Your task to perform on an android device: see creations saved in the google photos Image 0: 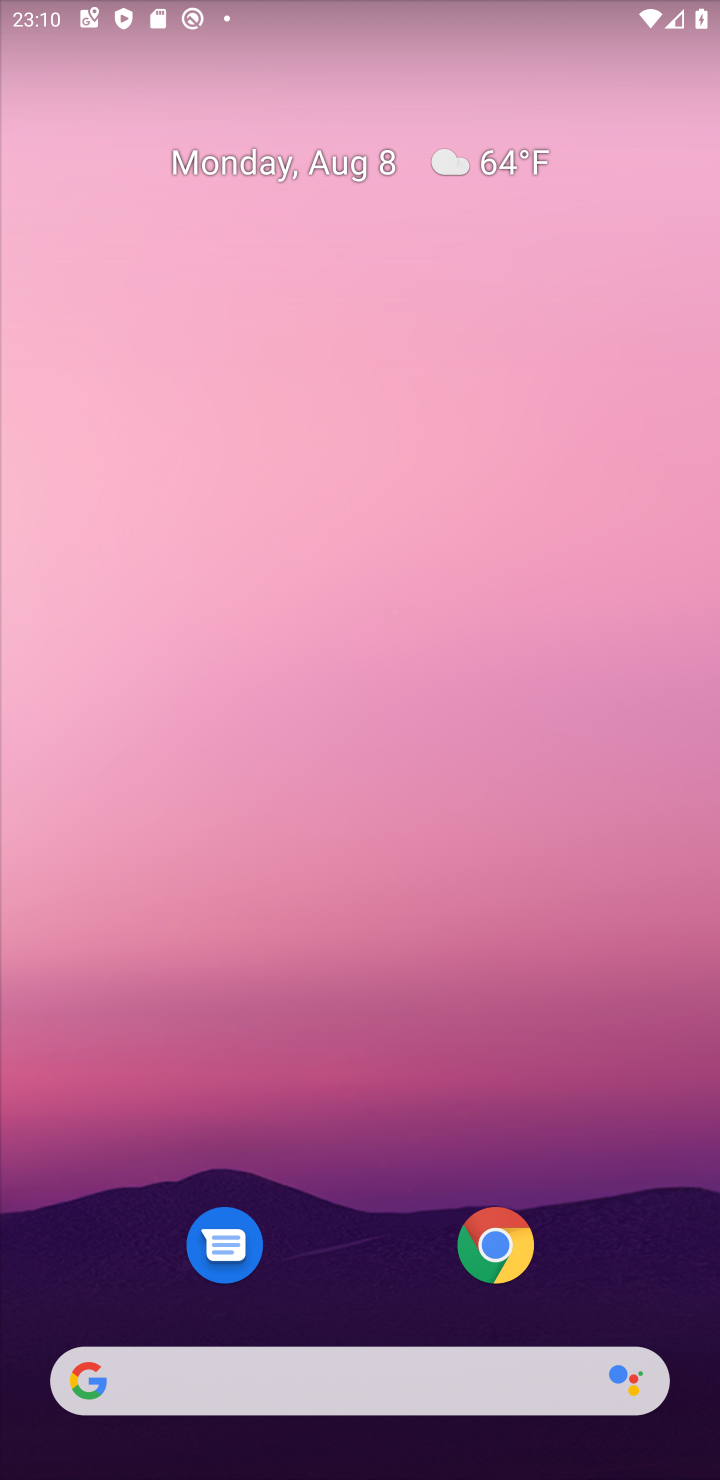
Step 0: drag from (396, 1198) to (407, 514)
Your task to perform on an android device: see creations saved in the google photos Image 1: 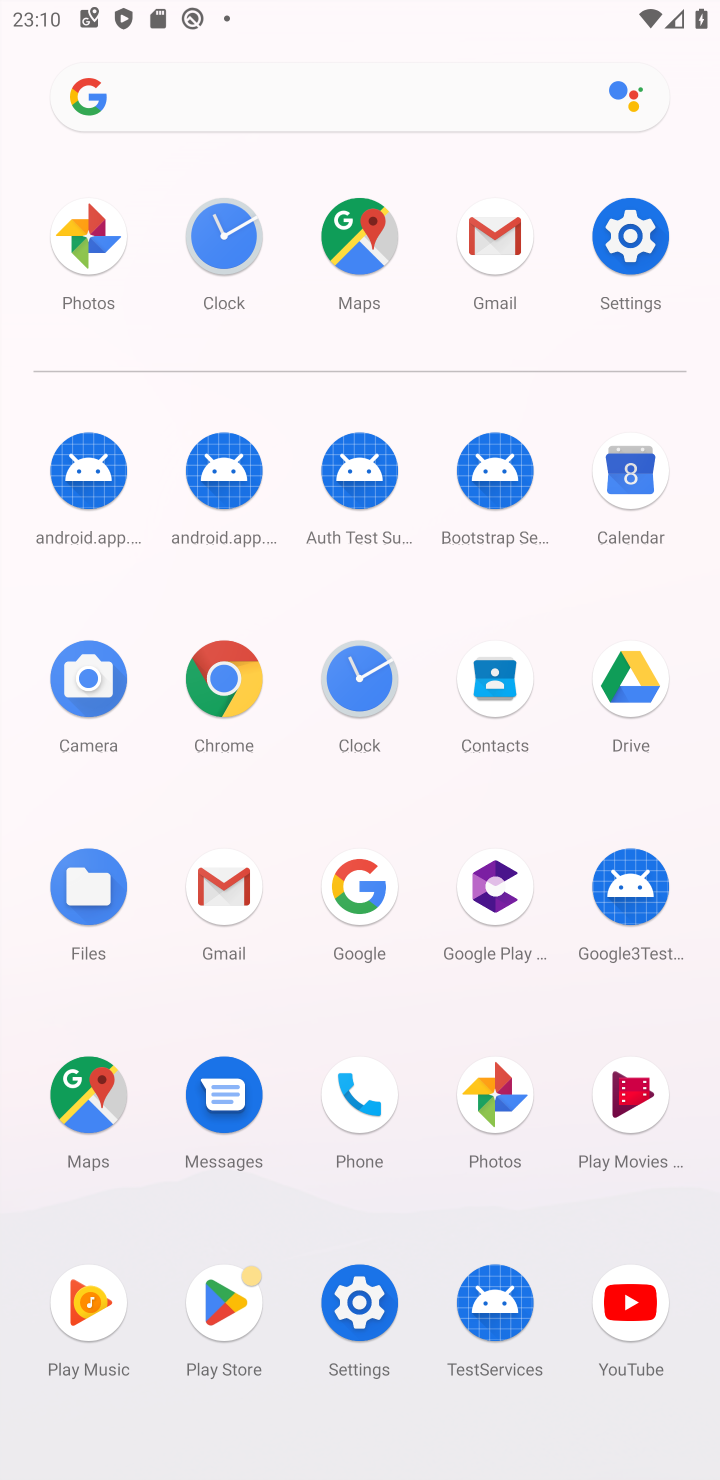
Step 1: click (82, 236)
Your task to perform on an android device: see creations saved in the google photos Image 2: 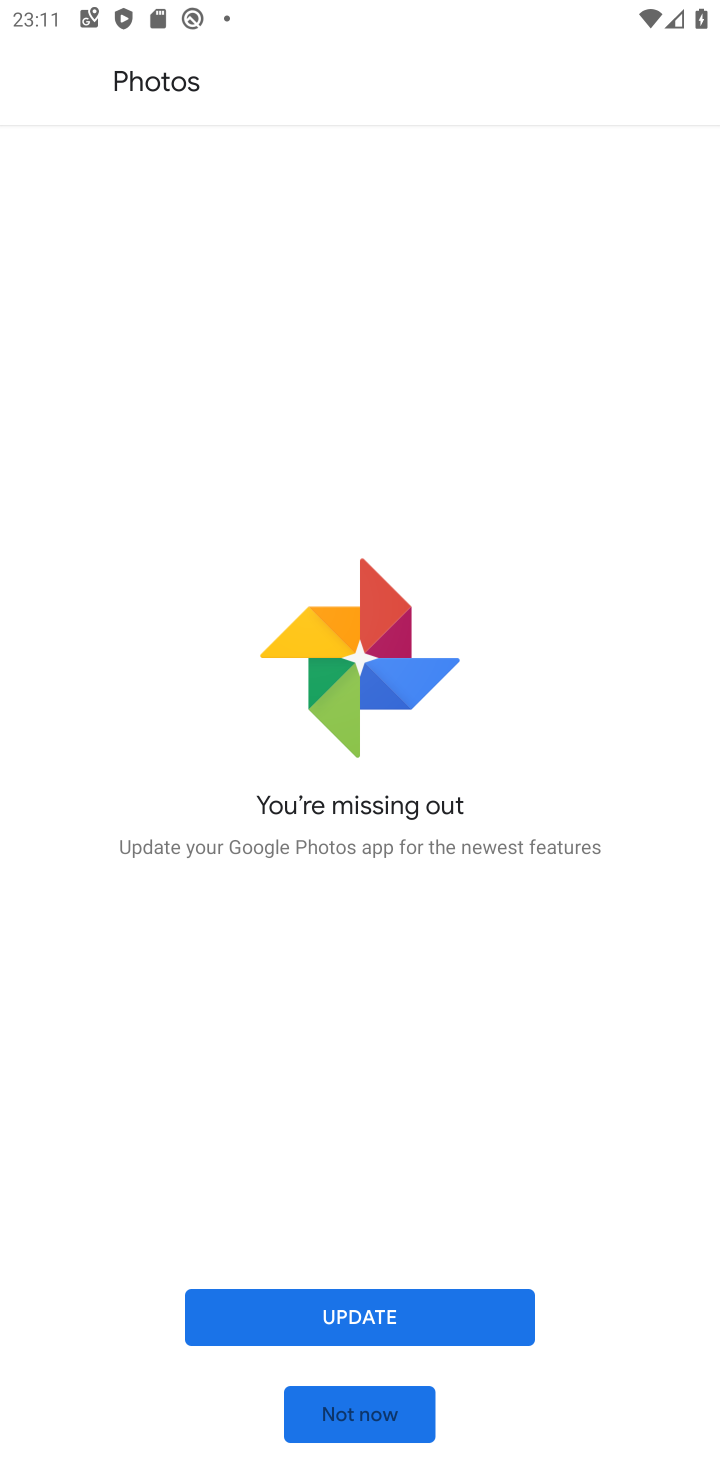
Step 2: click (366, 1321)
Your task to perform on an android device: see creations saved in the google photos Image 3: 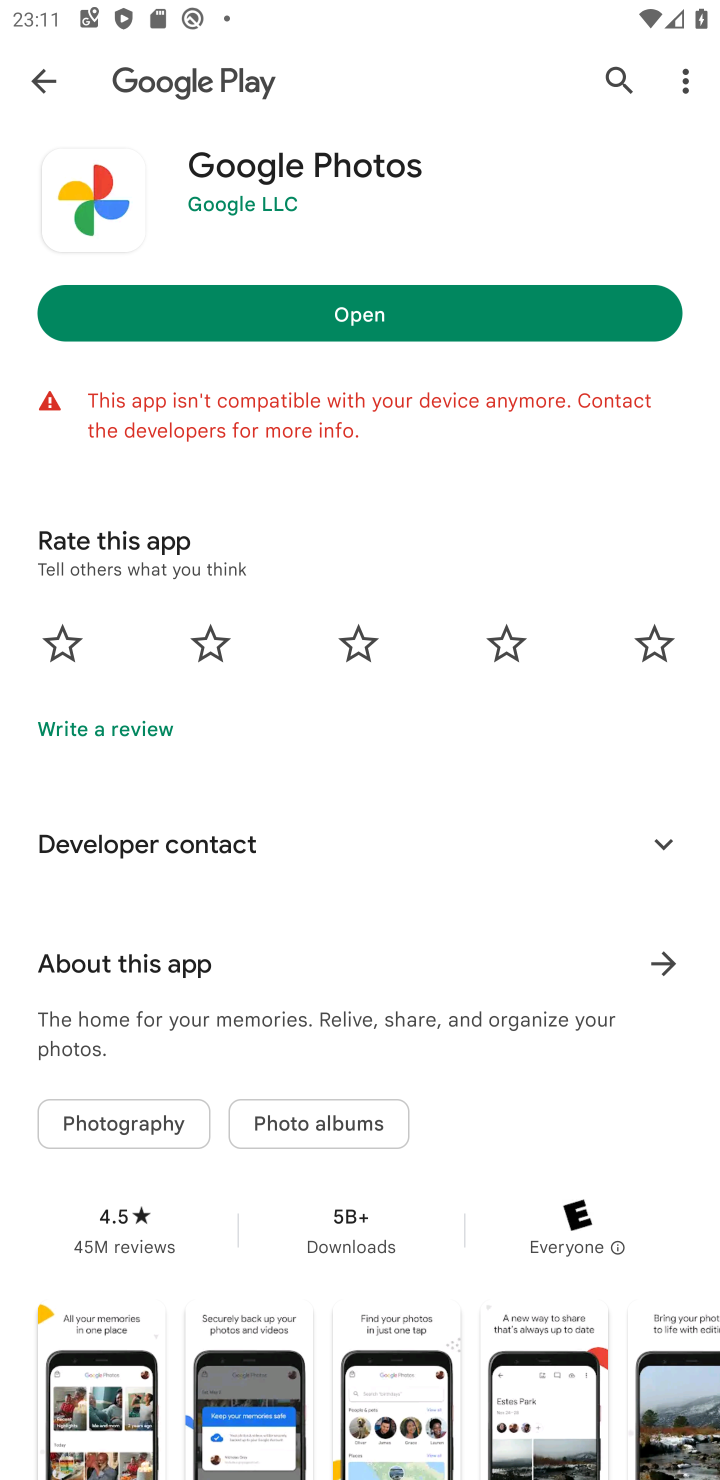
Step 3: click (367, 300)
Your task to perform on an android device: see creations saved in the google photos Image 4: 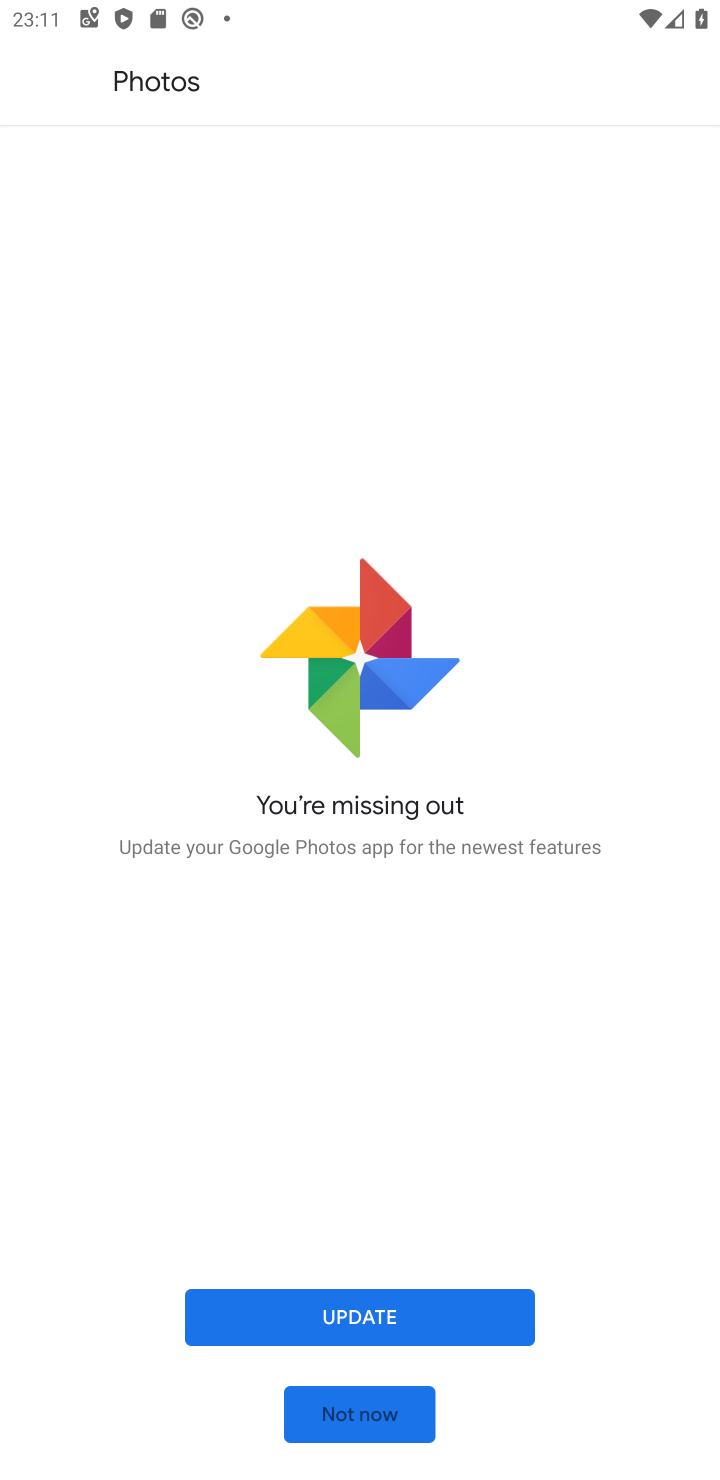
Step 4: click (359, 1300)
Your task to perform on an android device: see creations saved in the google photos Image 5: 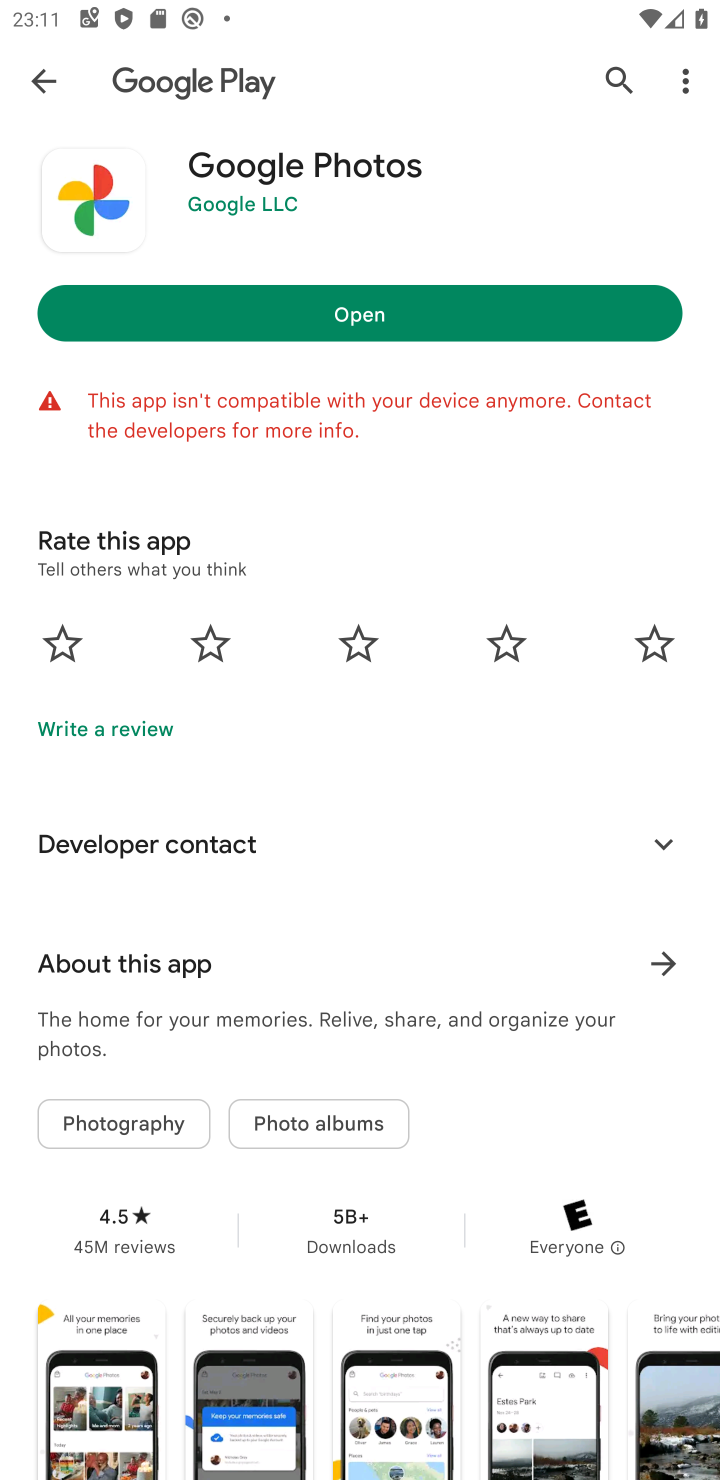
Step 5: click (425, 315)
Your task to perform on an android device: see creations saved in the google photos Image 6: 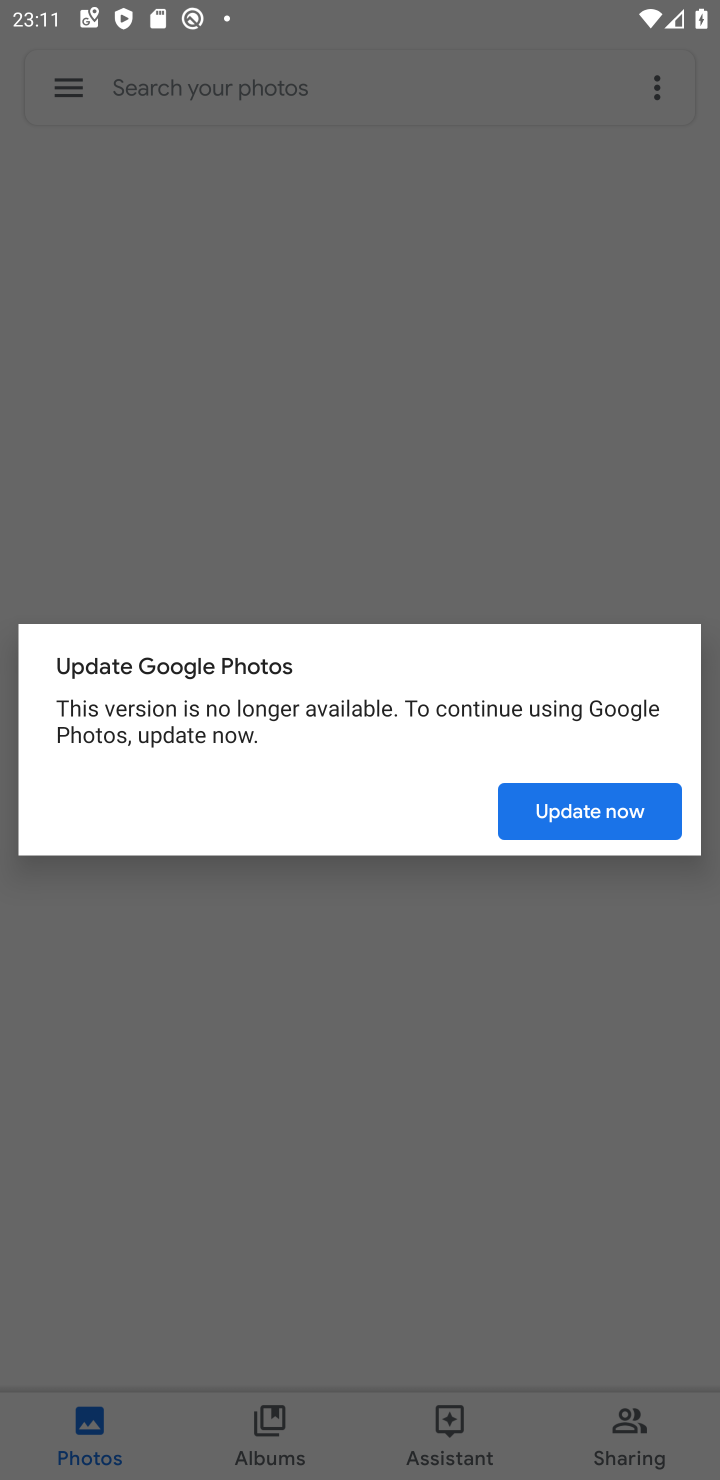
Step 6: click (620, 806)
Your task to perform on an android device: see creations saved in the google photos Image 7: 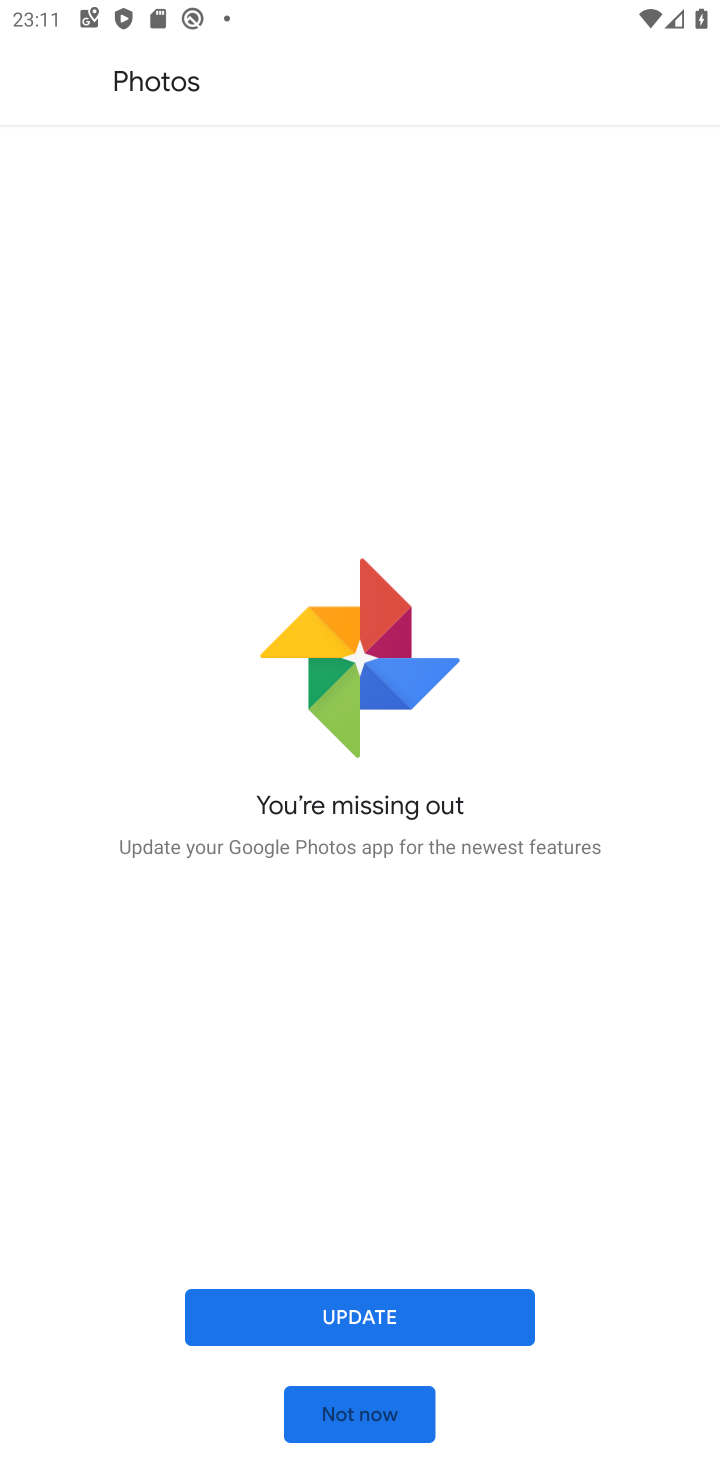
Step 7: click (352, 1423)
Your task to perform on an android device: see creations saved in the google photos Image 8: 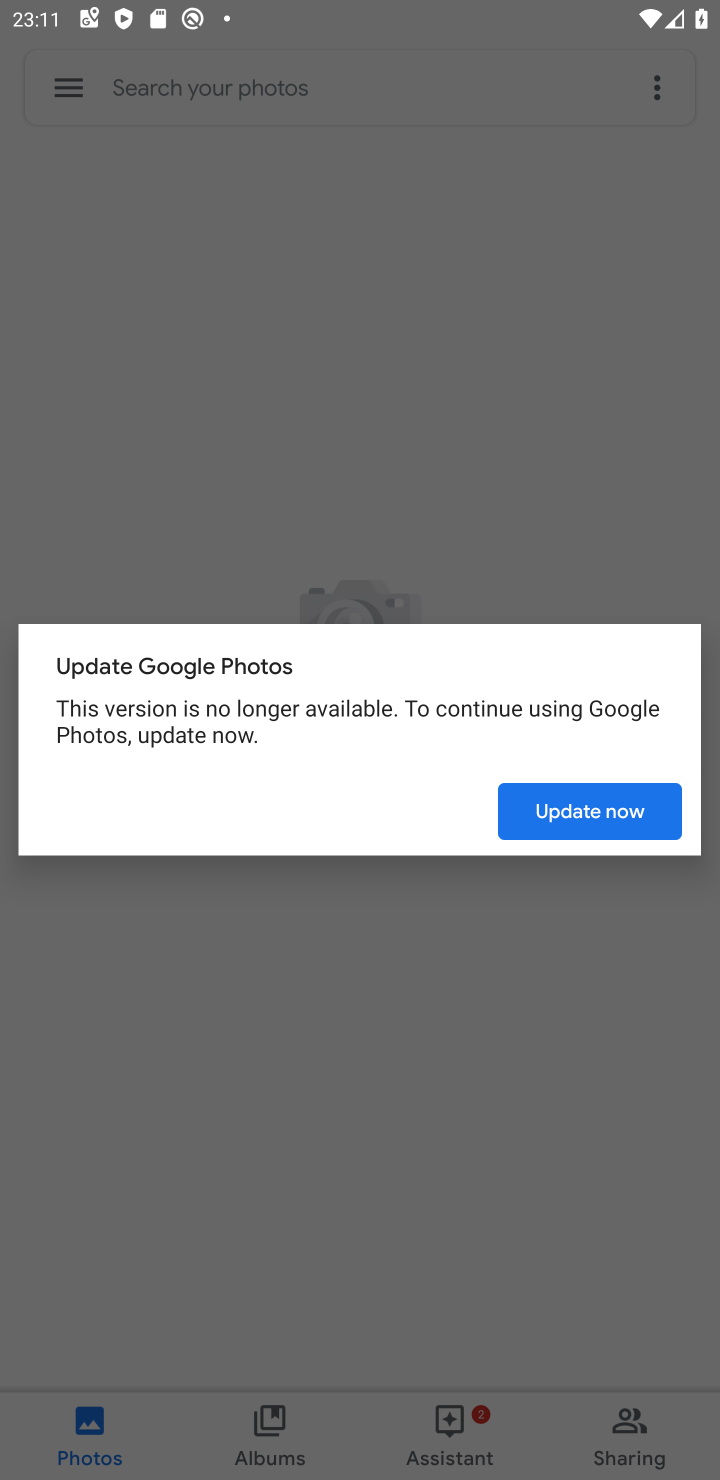
Step 8: click (597, 815)
Your task to perform on an android device: see creations saved in the google photos Image 9: 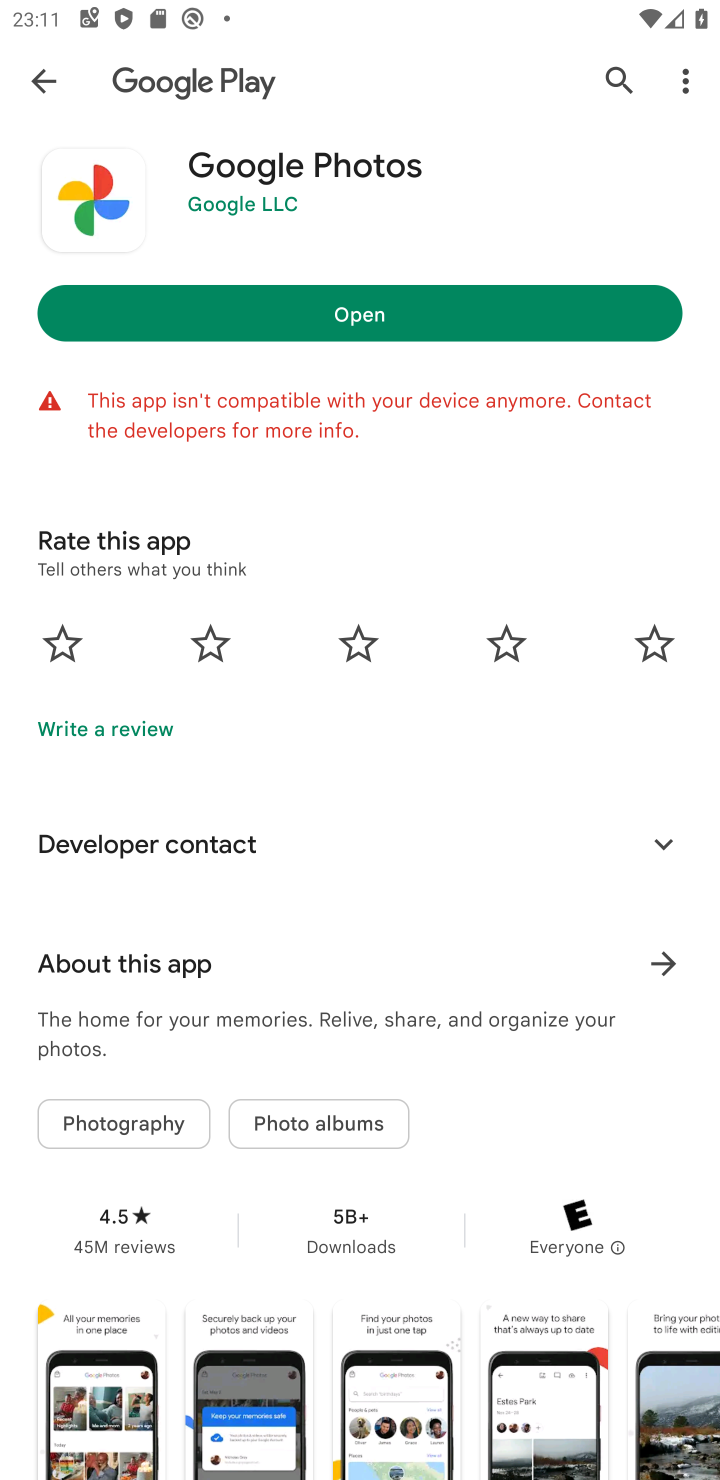
Step 9: click (339, 304)
Your task to perform on an android device: see creations saved in the google photos Image 10: 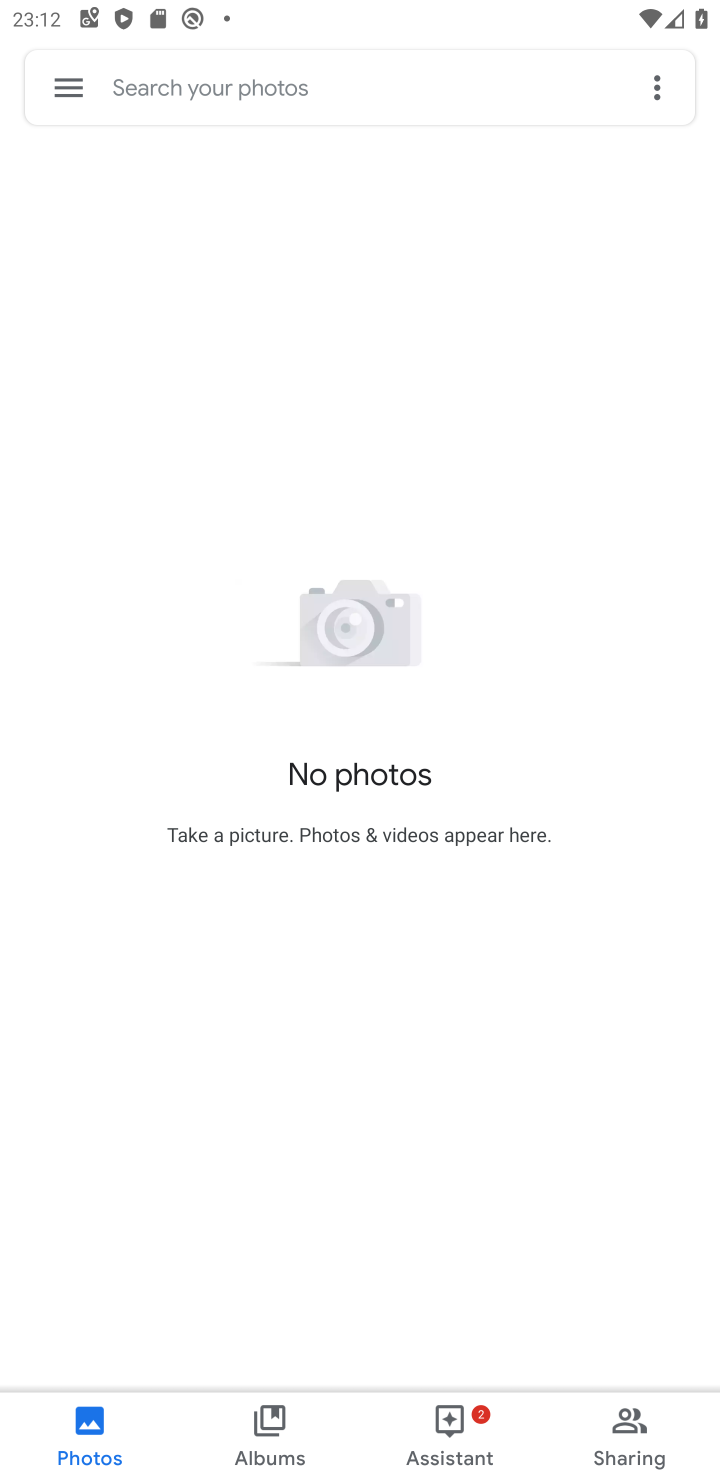
Step 10: click (151, 74)
Your task to perform on an android device: see creations saved in the google photos Image 11: 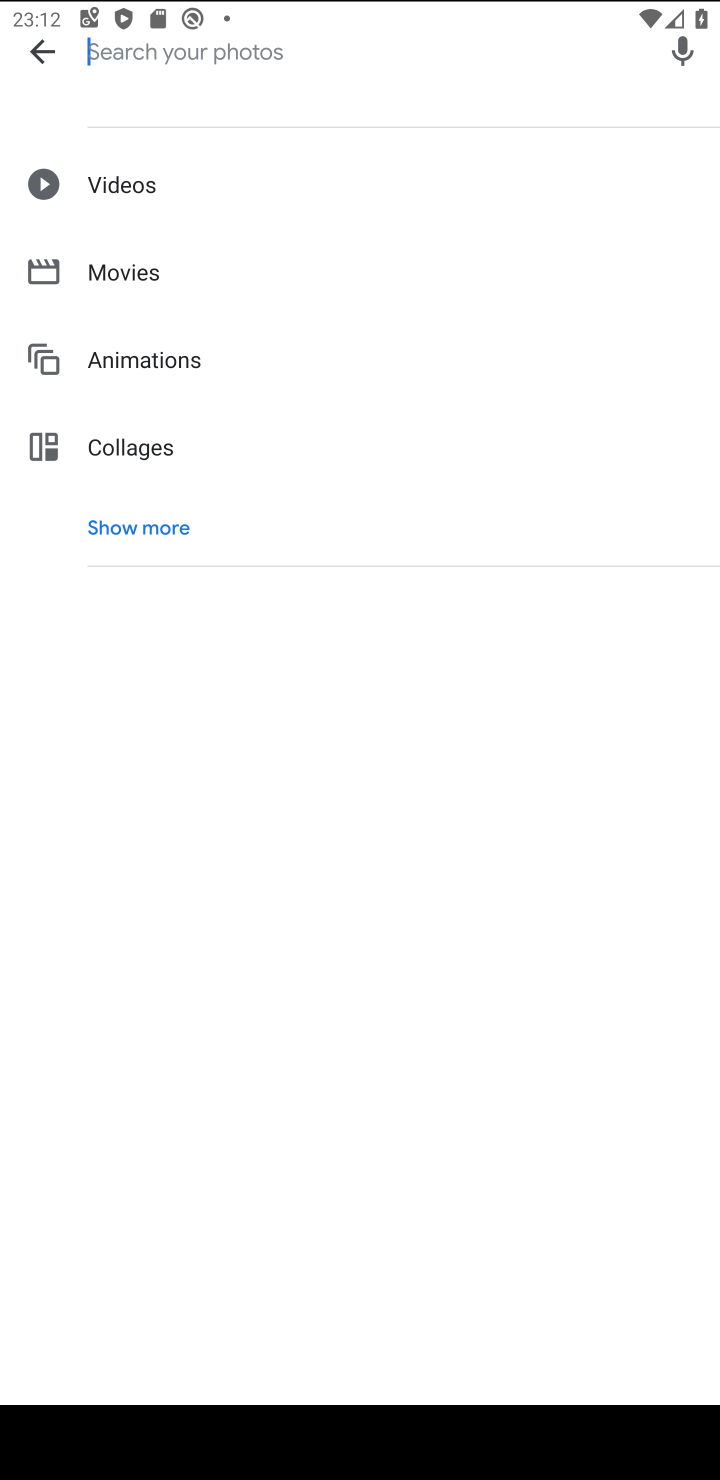
Step 11: click (159, 520)
Your task to perform on an android device: see creations saved in the google photos Image 12: 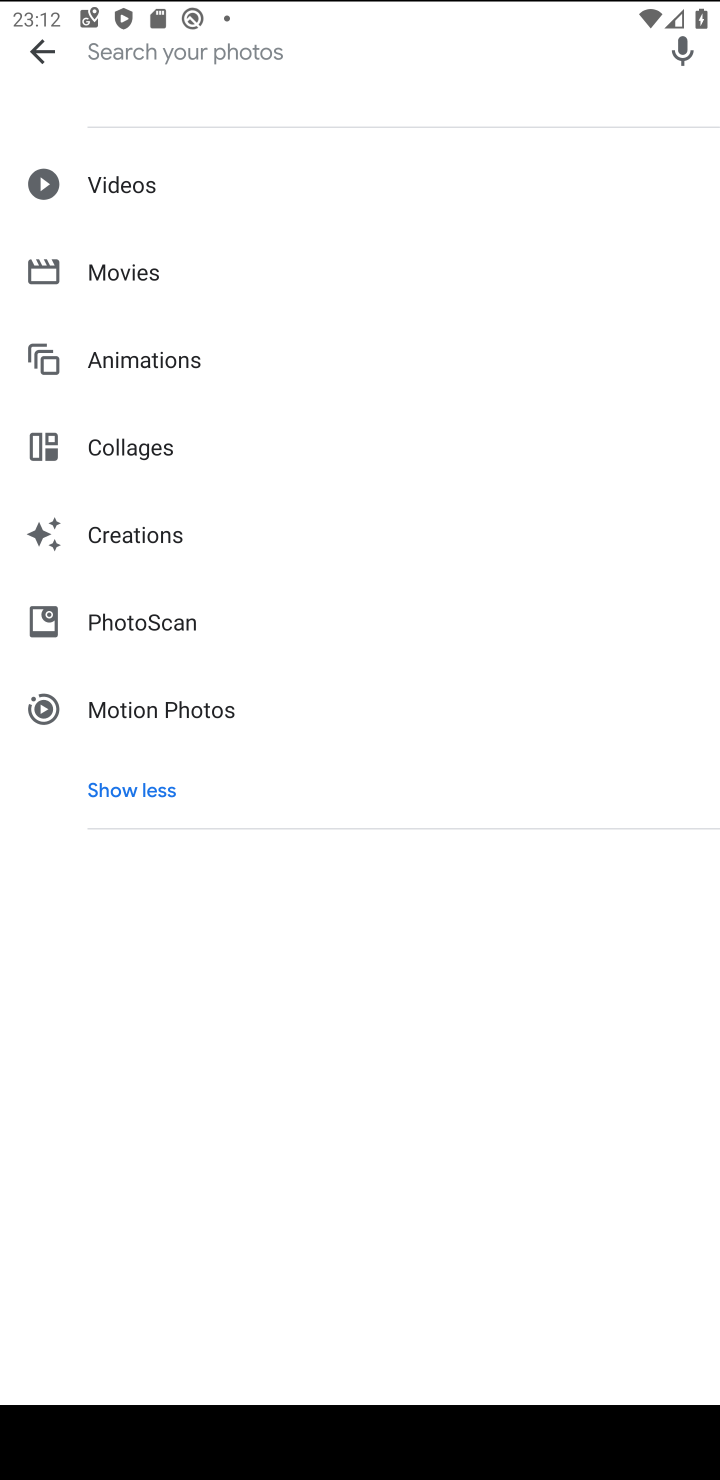
Step 12: click (152, 529)
Your task to perform on an android device: see creations saved in the google photos Image 13: 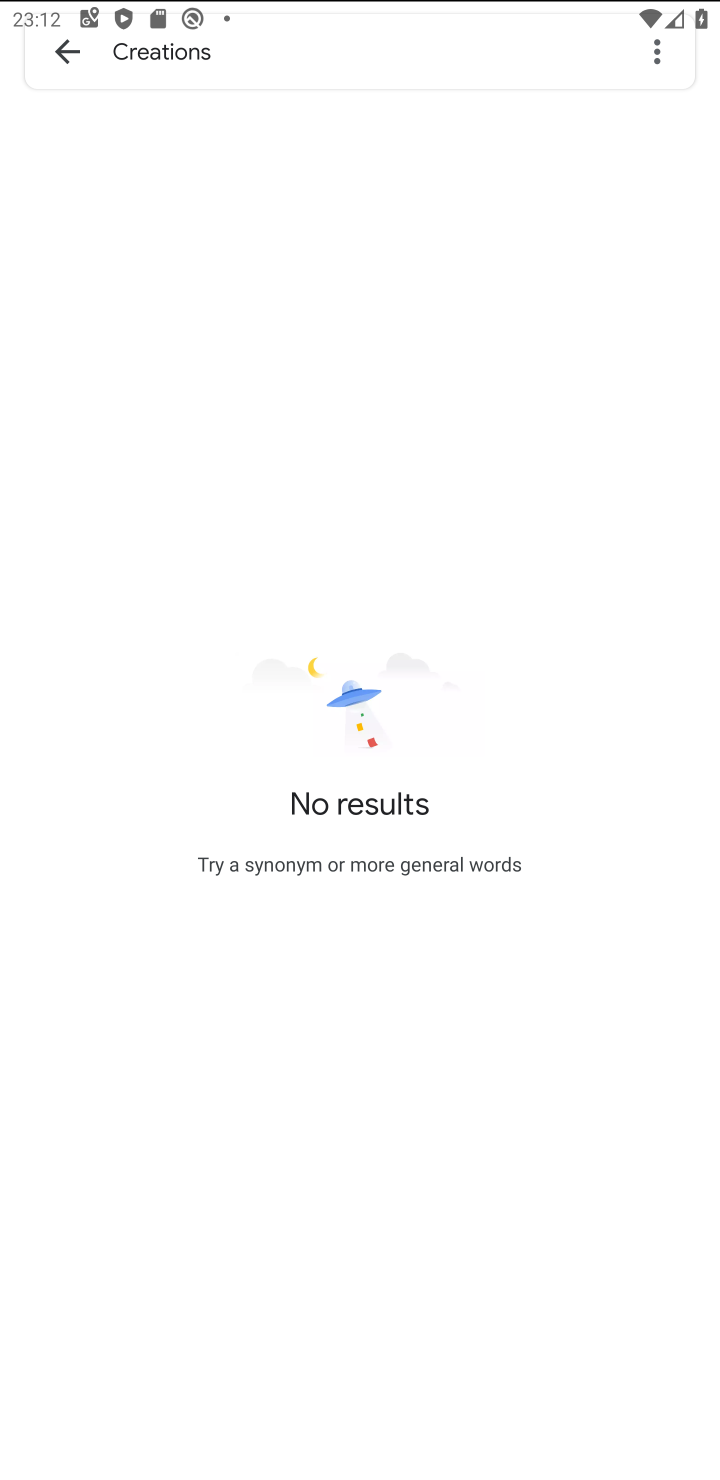
Step 13: task complete